Your task to perform on an android device: clear history in the chrome app Image 0: 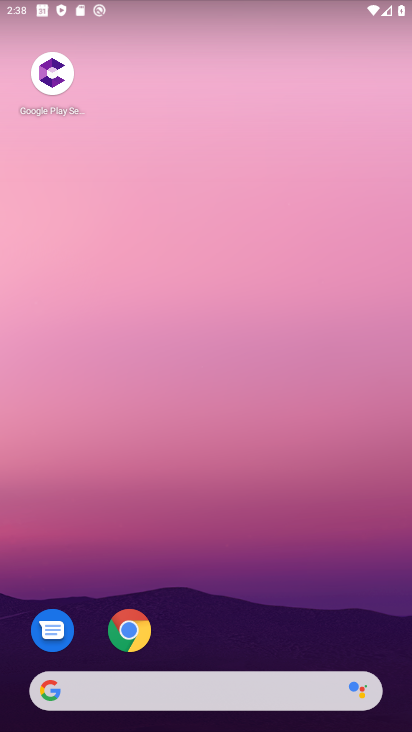
Step 0: click (135, 628)
Your task to perform on an android device: clear history in the chrome app Image 1: 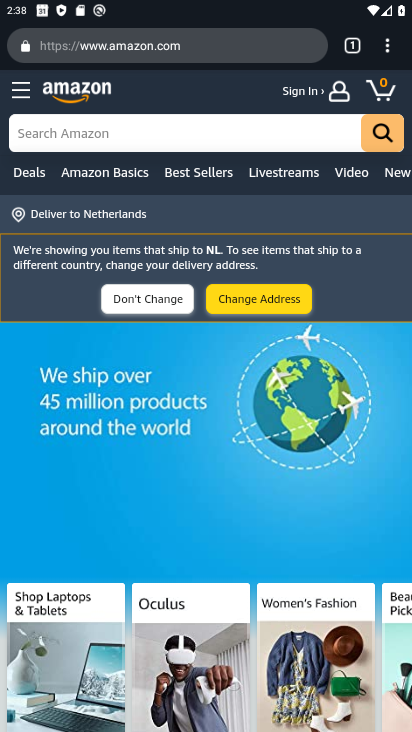
Step 1: drag from (389, 52) to (263, 254)
Your task to perform on an android device: clear history in the chrome app Image 2: 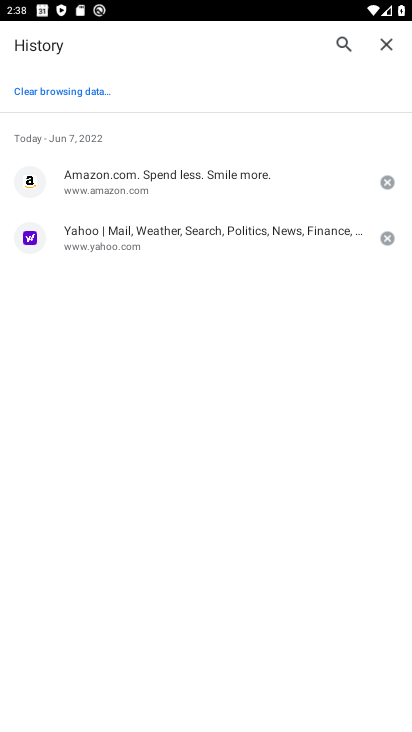
Step 2: click (64, 92)
Your task to perform on an android device: clear history in the chrome app Image 3: 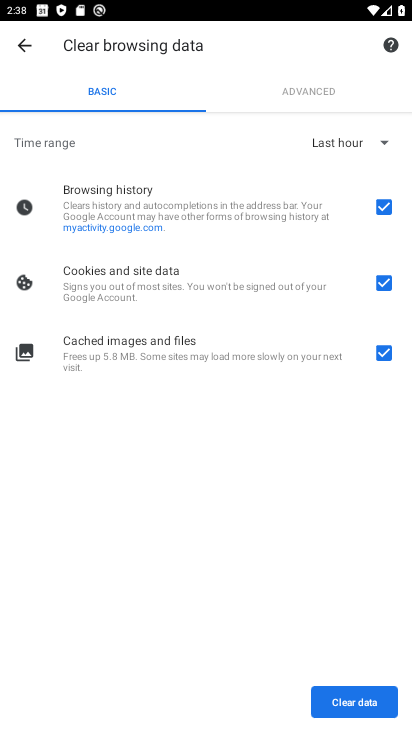
Step 3: click (364, 705)
Your task to perform on an android device: clear history in the chrome app Image 4: 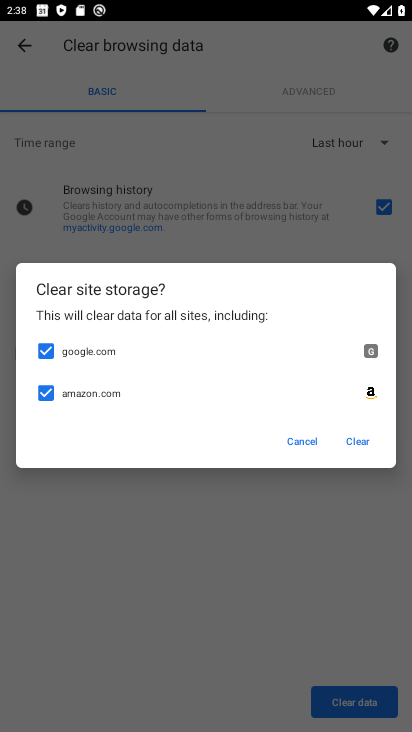
Step 4: click (366, 442)
Your task to perform on an android device: clear history in the chrome app Image 5: 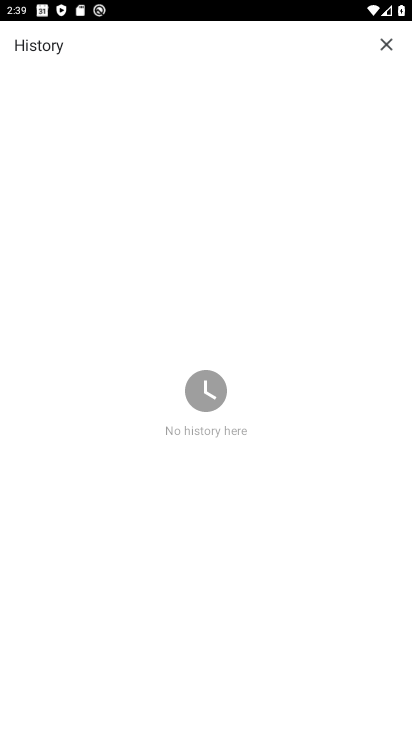
Step 5: task complete